Your task to perform on an android device: Clear the shopping cart on costco.com. Search for razer nari on costco.com, select the first entry, add it to the cart, then select checkout. Image 0: 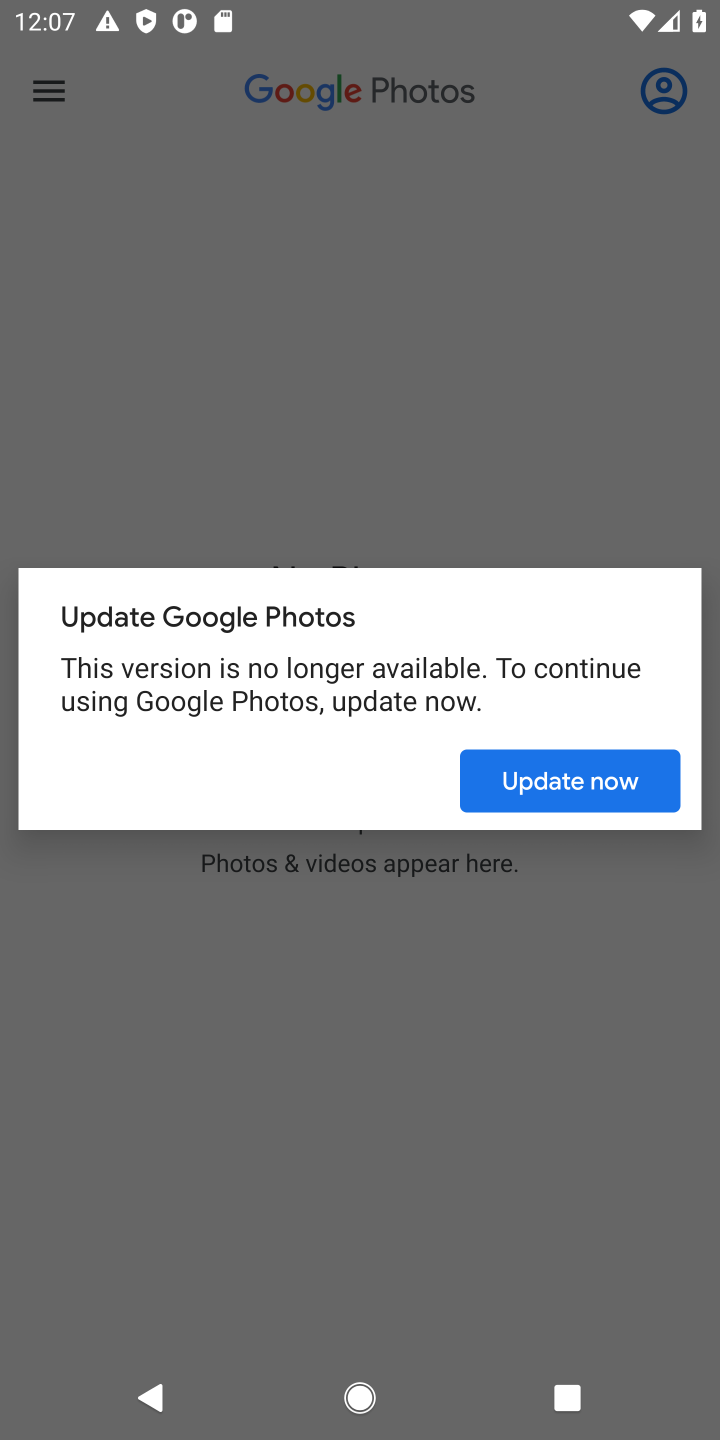
Step 0: press home button
Your task to perform on an android device: Clear the shopping cart on costco.com. Search for razer nari on costco.com, select the first entry, add it to the cart, then select checkout. Image 1: 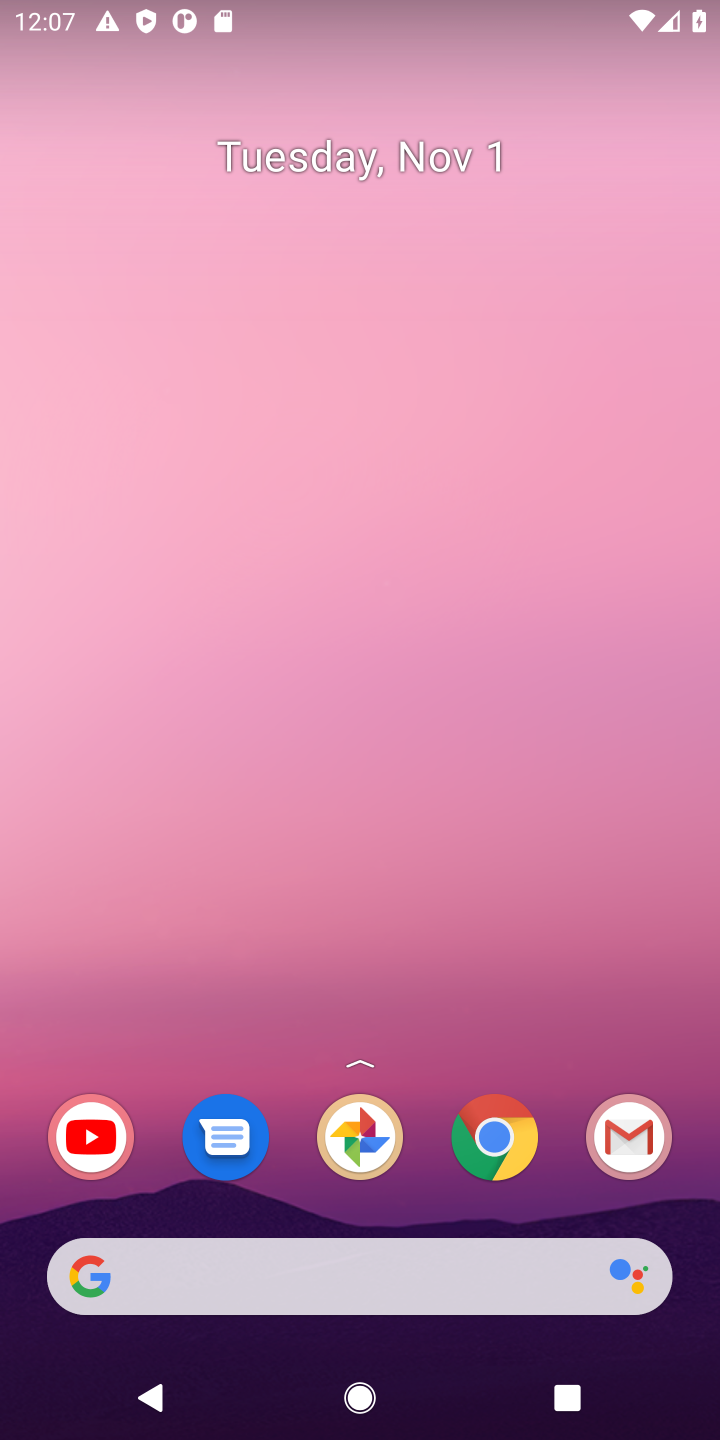
Step 1: click (494, 1141)
Your task to perform on an android device: Clear the shopping cart on costco.com. Search for razer nari on costco.com, select the first entry, add it to the cart, then select checkout. Image 2: 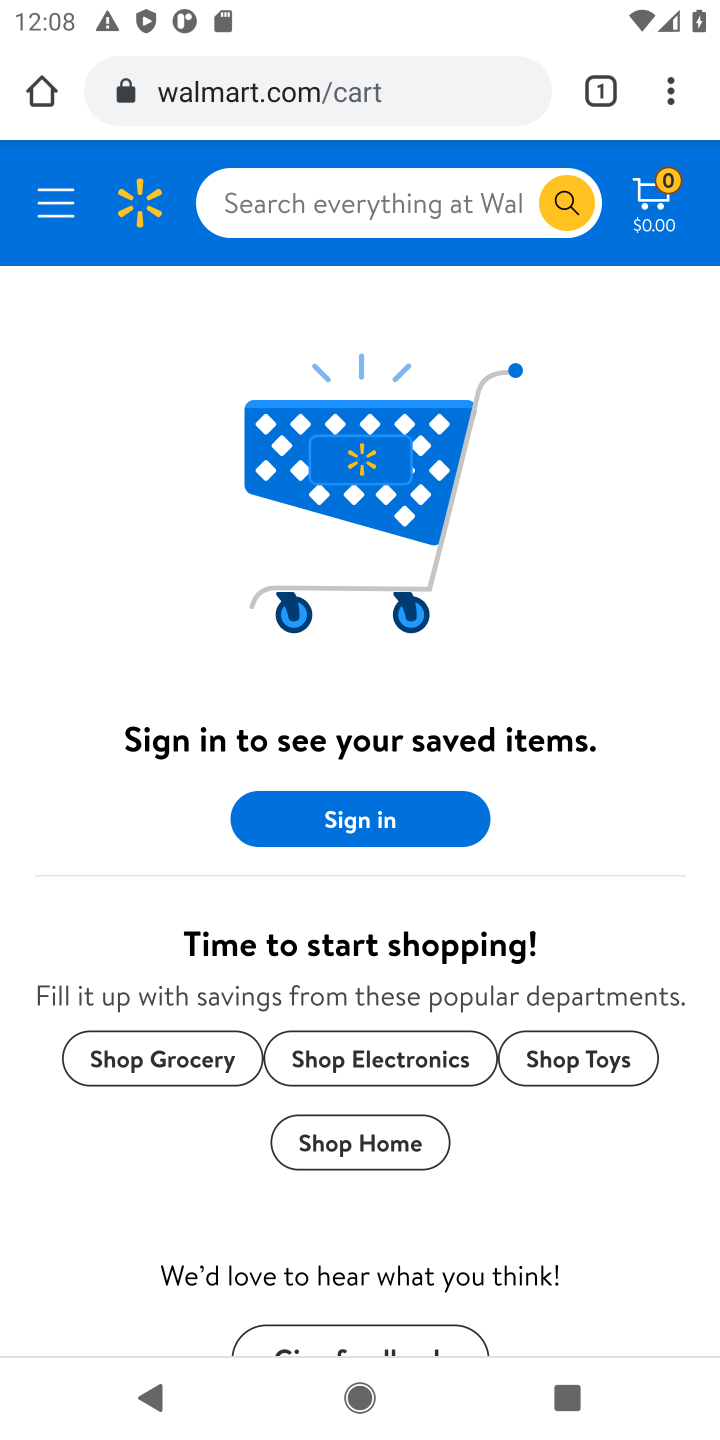
Step 2: click (430, 98)
Your task to perform on an android device: Clear the shopping cart on costco.com. Search for razer nari on costco.com, select the first entry, add it to the cart, then select checkout. Image 3: 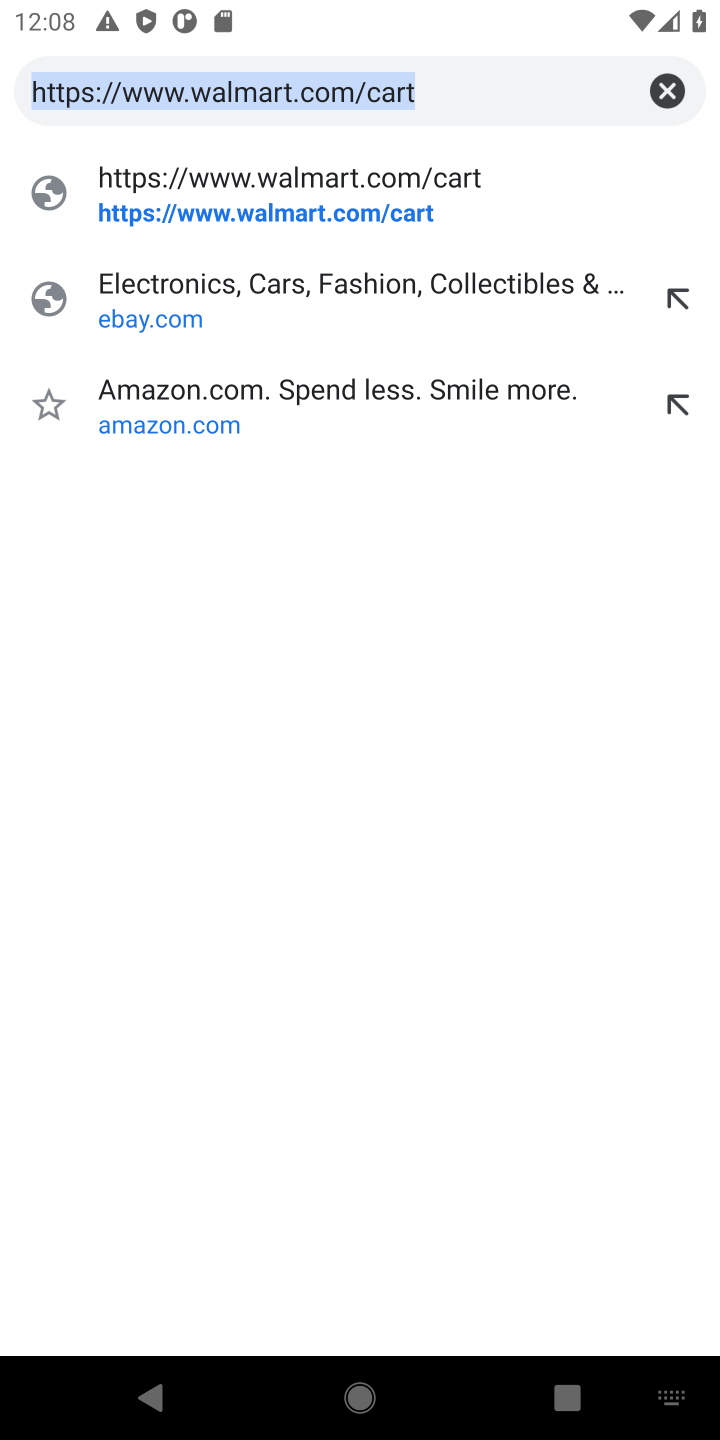
Step 3: click (676, 88)
Your task to perform on an android device: Clear the shopping cart on costco.com. Search for razer nari on costco.com, select the first entry, add it to the cart, then select checkout. Image 4: 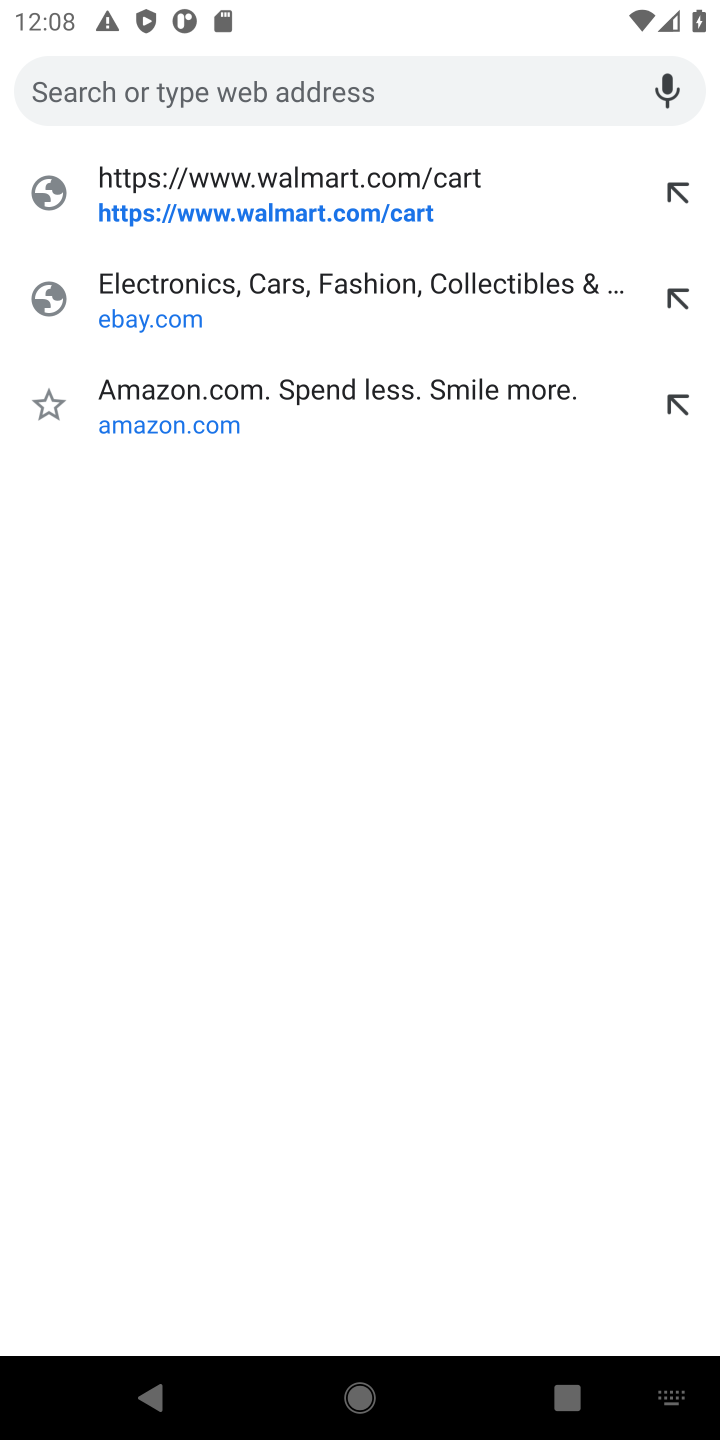
Step 4: type "costco.com"
Your task to perform on an android device: Clear the shopping cart on costco.com. Search for razer nari on costco.com, select the first entry, add it to the cart, then select checkout. Image 5: 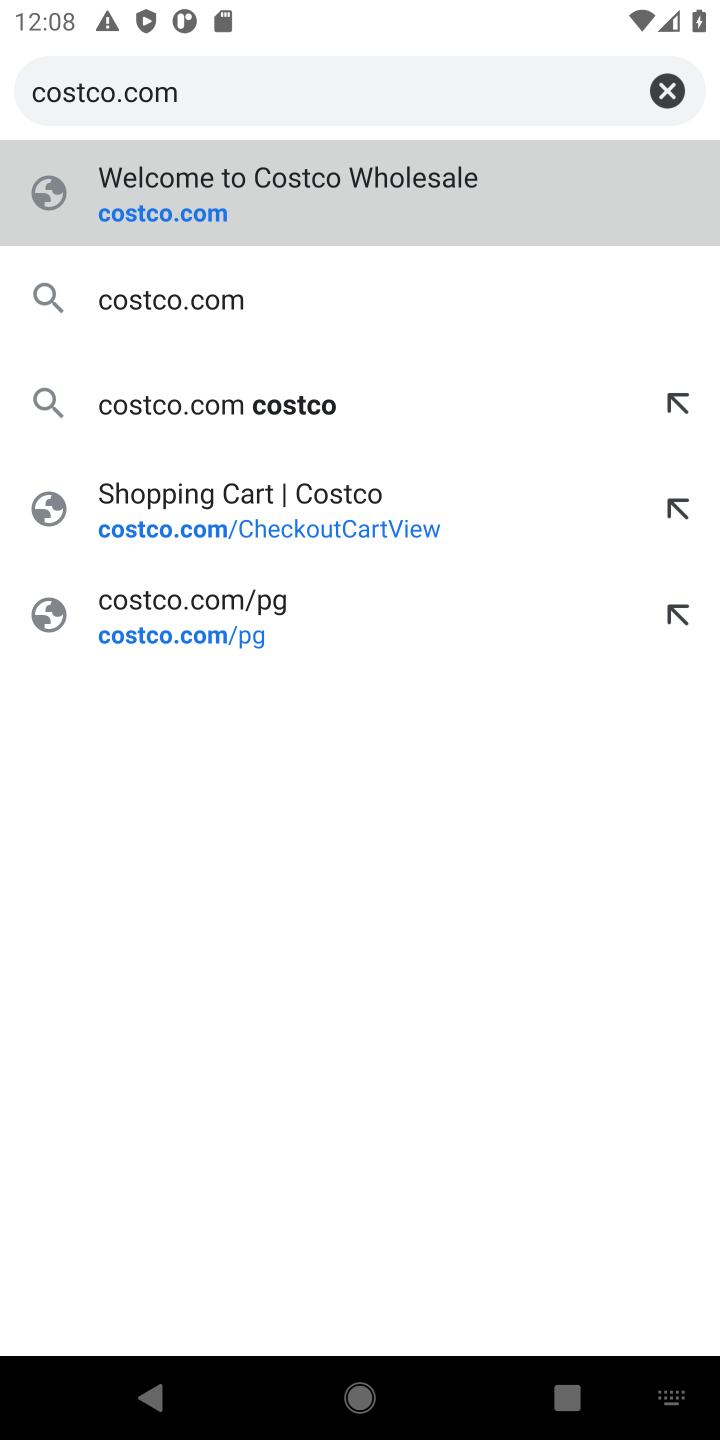
Step 5: click (216, 308)
Your task to perform on an android device: Clear the shopping cart on costco.com. Search for razer nari on costco.com, select the first entry, add it to the cart, then select checkout. Image 6: 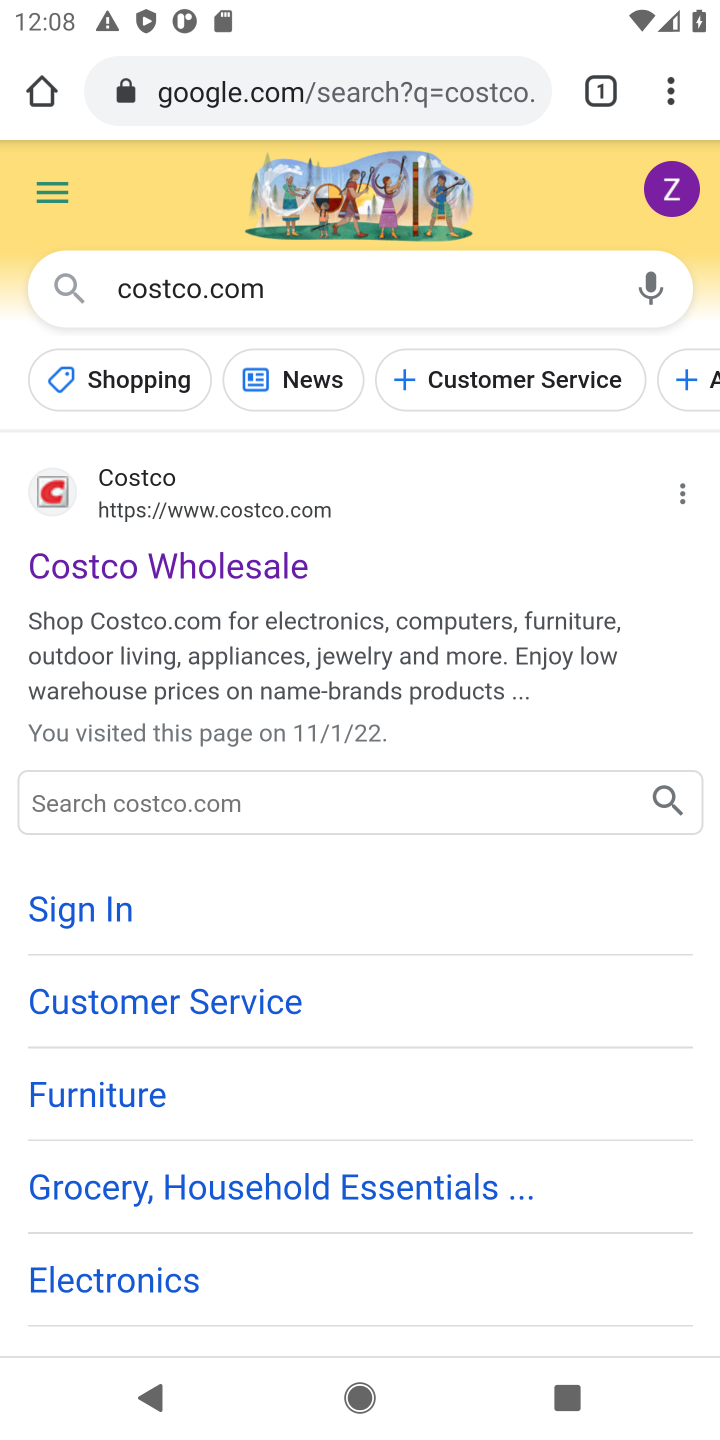
Step 6: click (207, 567)
Your task to perform on an android device: Clear the shopping cart on costco.com. Search for razer nari on costco.com, select the first entry, add it to the cart, then select checkout. Image 7: 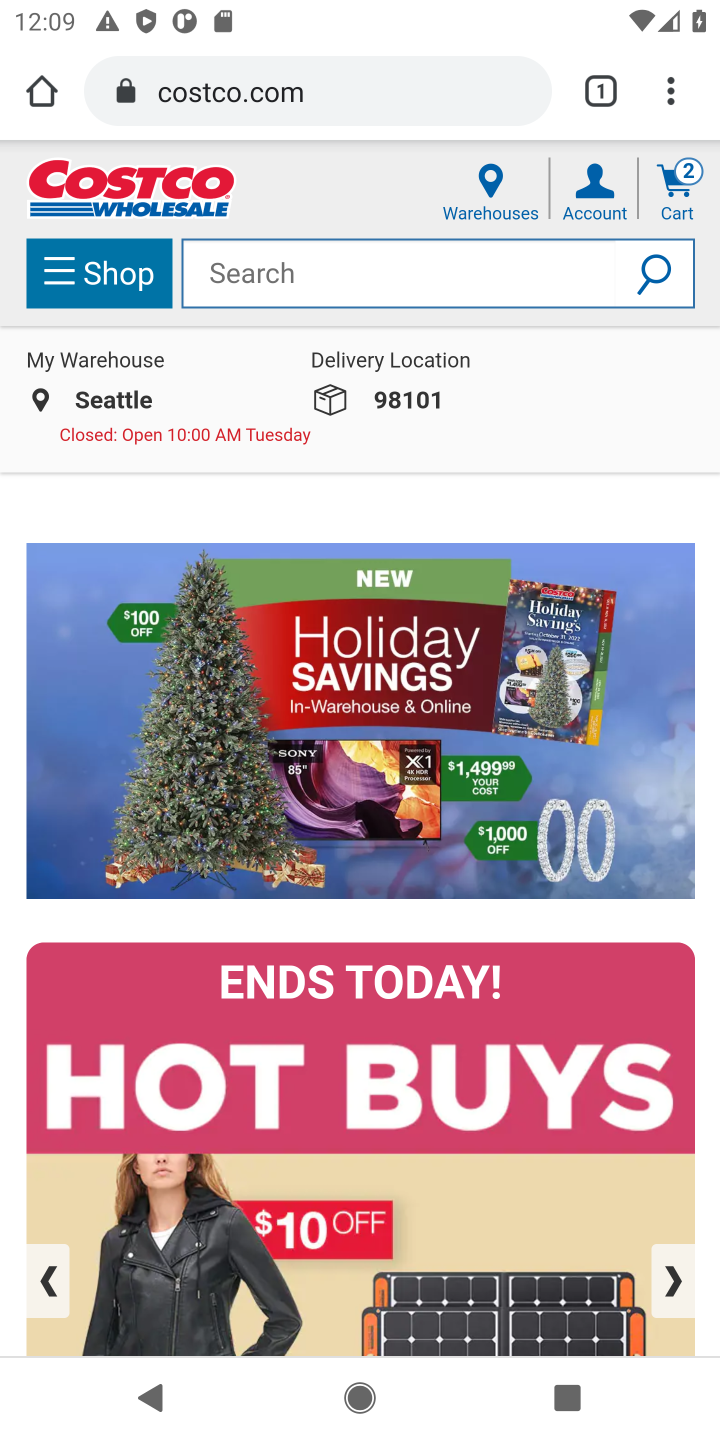
Step 7: click (679, 184)
Your task to perform on an android device: Clear the shopping cart on costco.com. Search for razer nari on costco.com, select the first entry, add it to the cart, then select checkout. Image 8: 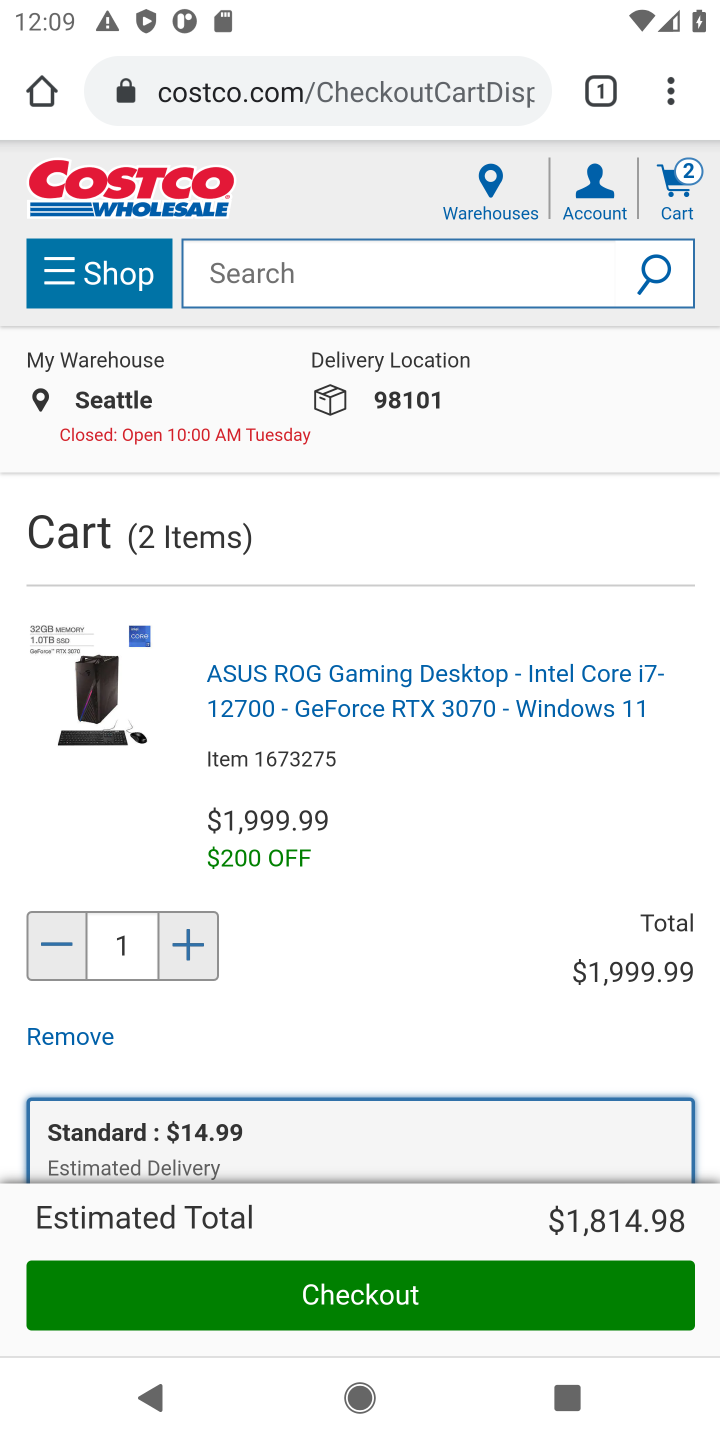
Step 8: click (674, 170)
Your task to perform on an android device: Clear the shopping cart on costco.com. Search for razer nari on costco.com, select the first entry, add it to the cart, then select checkout. Image 9: 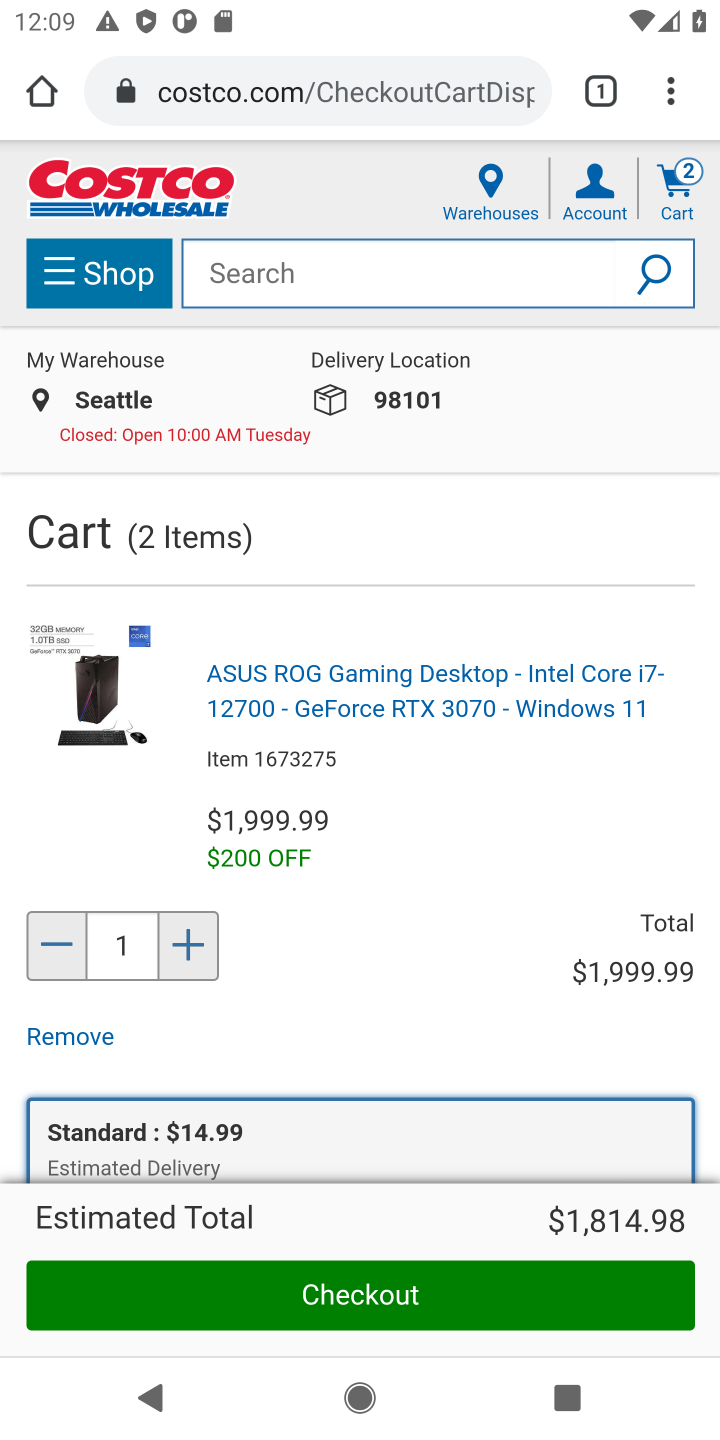
Step 9: drag from (381, 1017) to (471, 565)
Your task to perform on an android device: Clear the shopping cart on costco.com. Search for razer nari on costco.com, select the first entry, add it to the cart, then select checkout. Image 10: 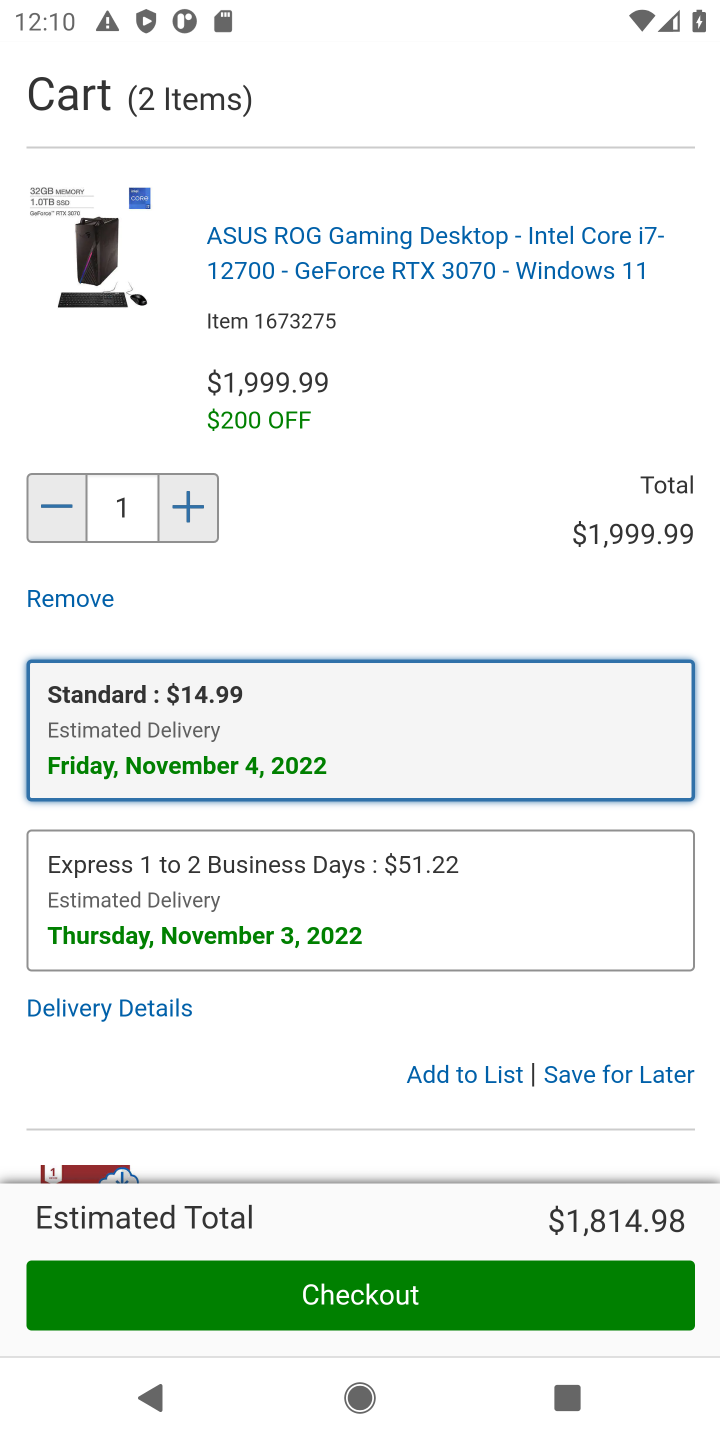
Step 10: click (638, 1070)
Your task to perform on an android device: Clear the shopping cart on costco.com. Search for razer nari on costco.com, select the first entry, add it to the cart, then select checkout. Image 11: 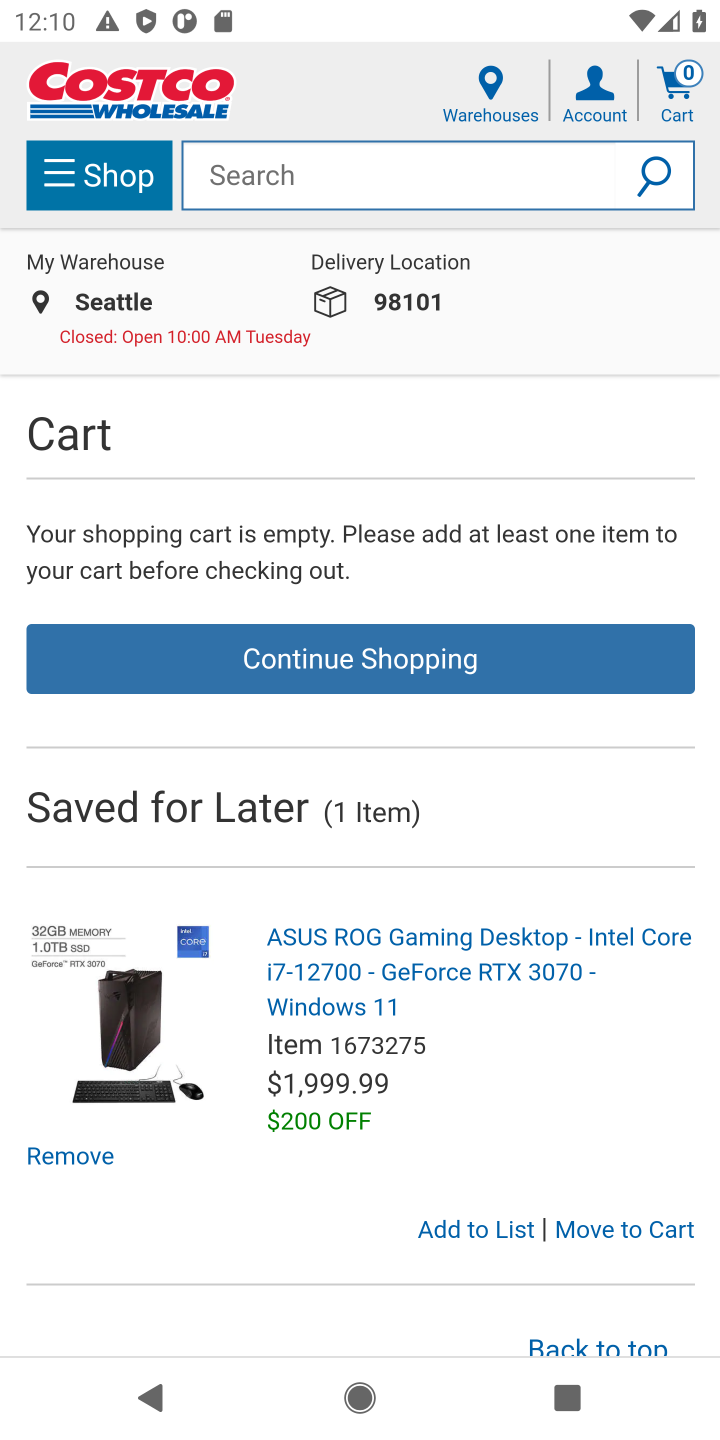
Step 11: click (420, 183)
Your task to perform on an android device: Clear the shopping cart on costco.com. Search for razer nari on costco.com, select the first entry, add it to the cart, then select checkout. Image 12: 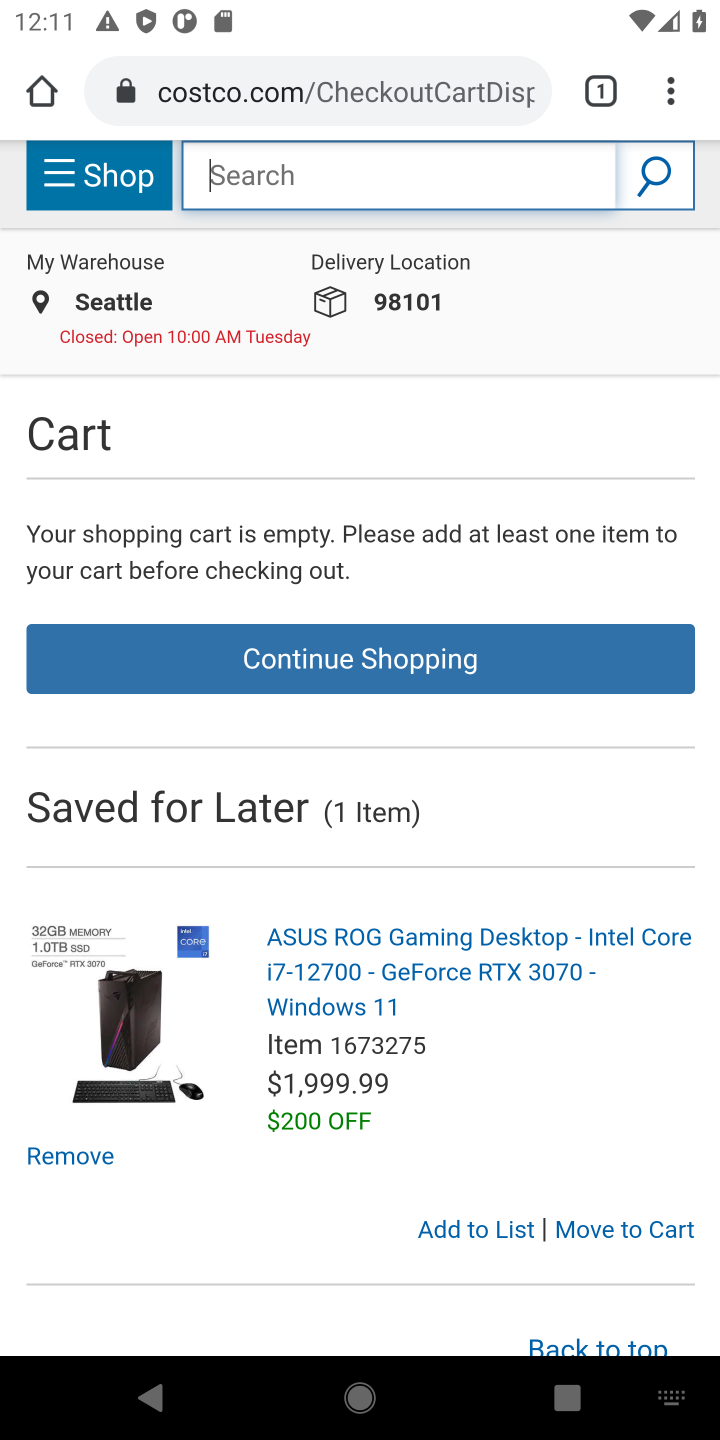
Step 12: type "razer nari"
Your task to perform on an android device: Clear the shopping cart on costco.com. Search for razer nari on costco.com, select the first entry, add it to the cart, then select checkout. Image 13: 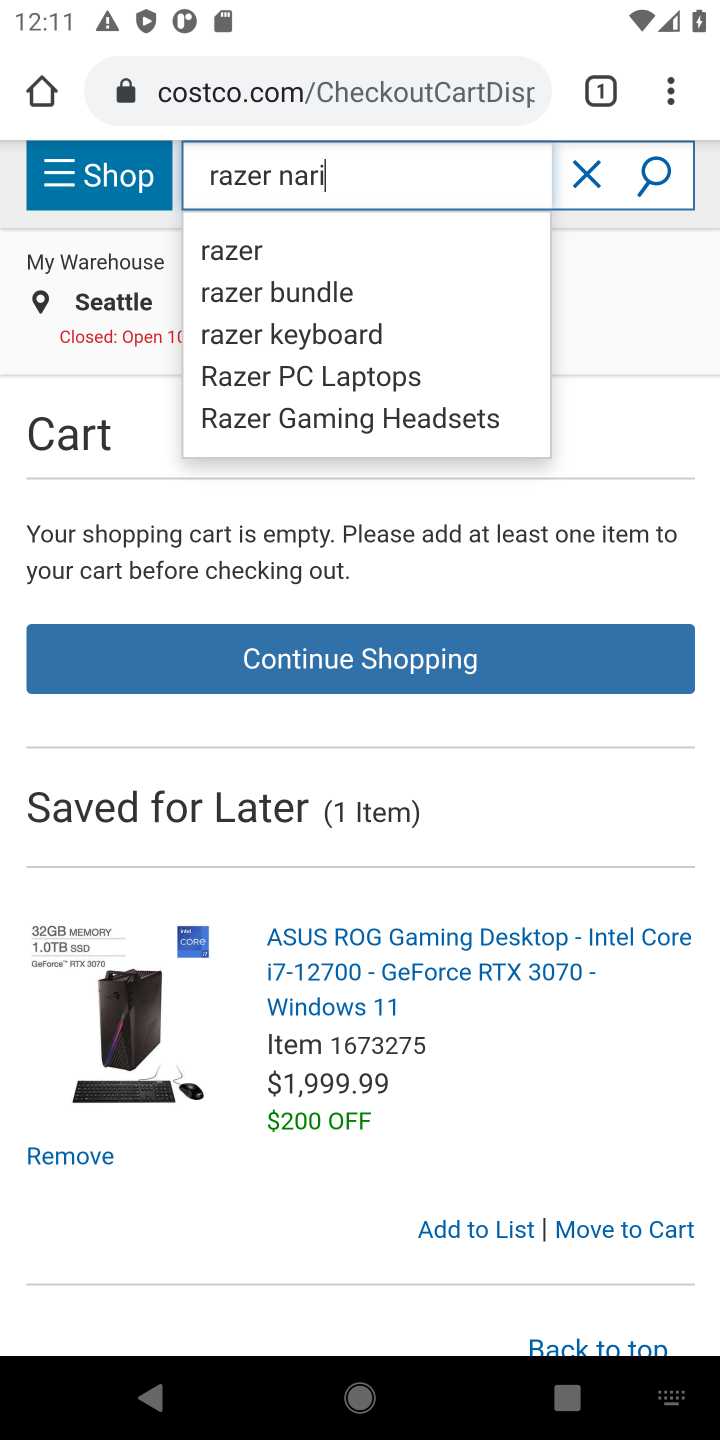
Step 13: click (661, 180)
Your task to perform on an android device: Clear the shopping cart on costco.com. Search for razer nari on costco.com, select the first entry, add it to the cart, then select checkout. Image 14: 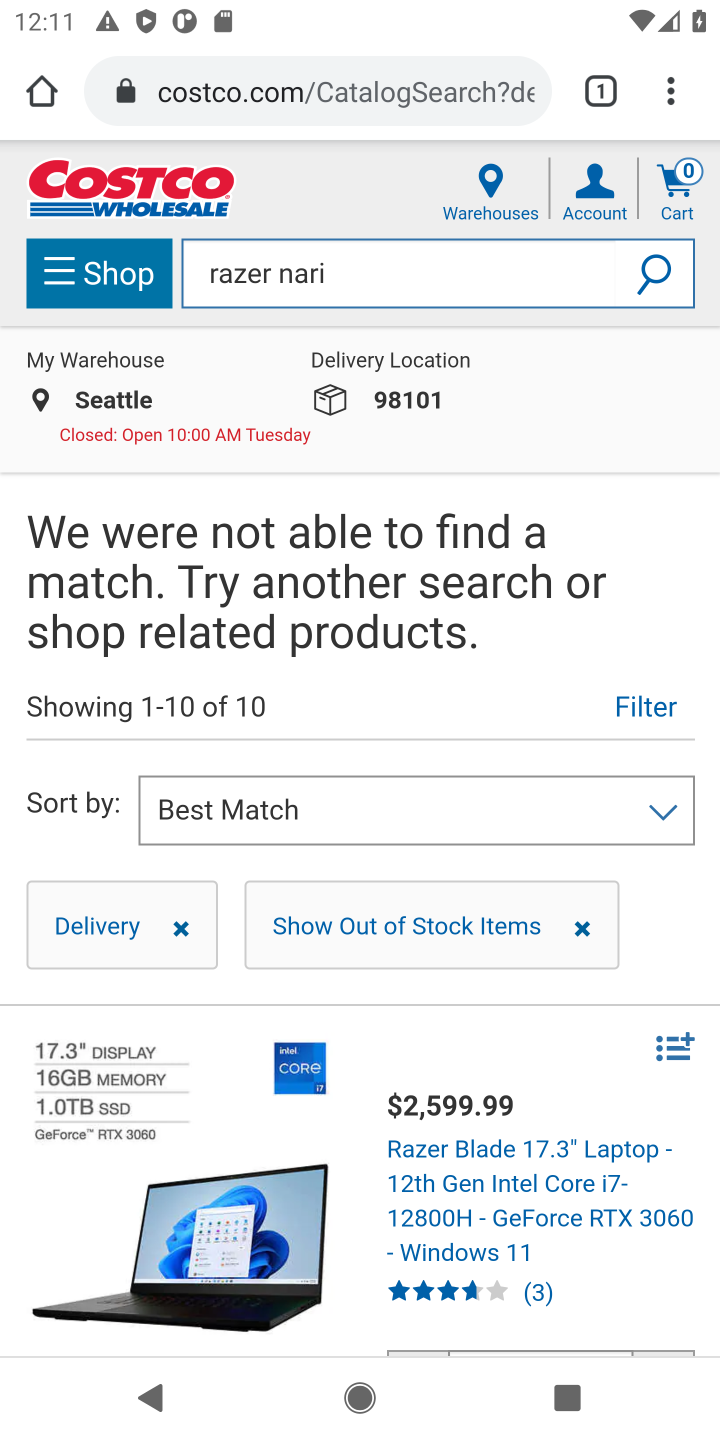
Step 14: task complete